Your task to perform on an android device: Open calendar and show me the fourth week of next month Image 0: 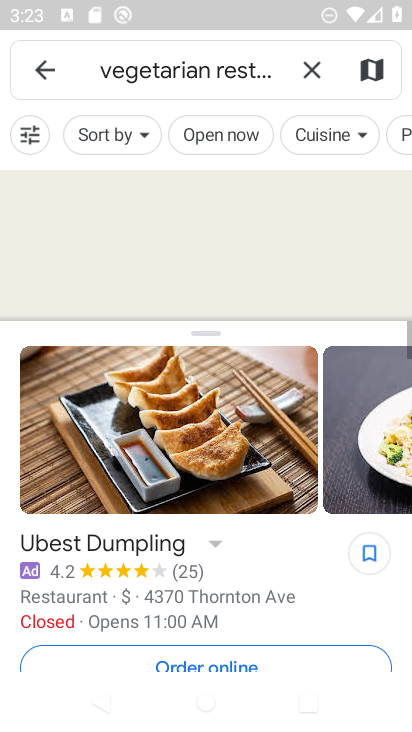
Step 0: click (325, 80)
Your task to perform on an android device: Open calendar and show me the fourth week of next month Image 1: 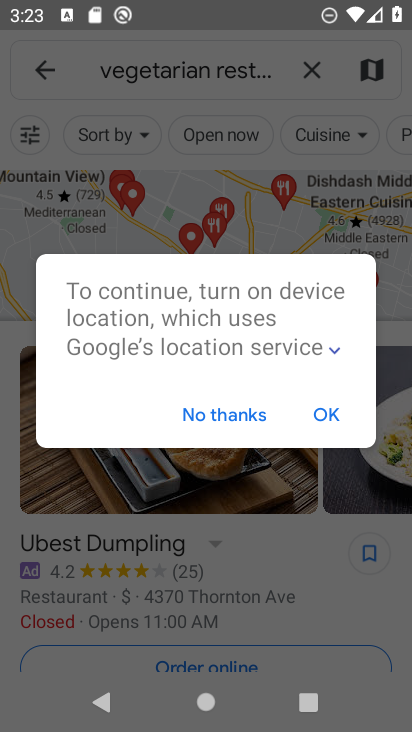
Step 1: press home button
Your task to perform on an android device: Open calendar and show me the fourth week of next month Image 2: 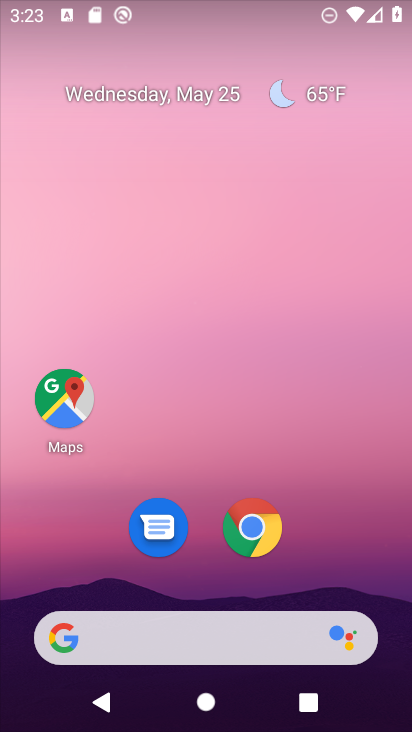
Step 2: drag from (223, 658) to (173, 103)
Your task to perform on an android device: Open calendar and show me the fourth week of next month Image 3: 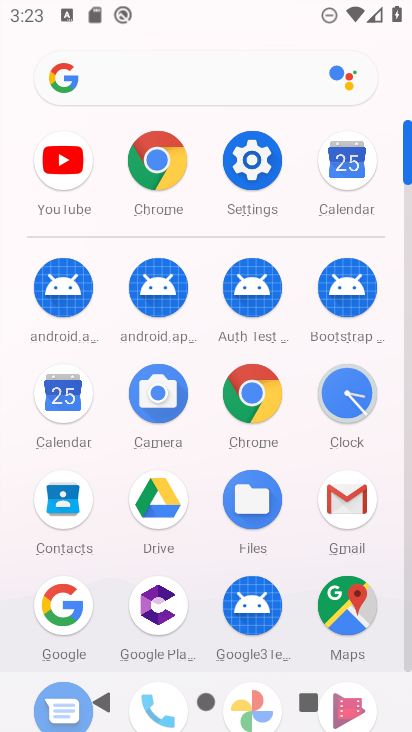
Step 3: drag from (70, 386) to (113, 386)
Your task to perform on an android device: Open calendar and show me the fourth week of next month Image 4: 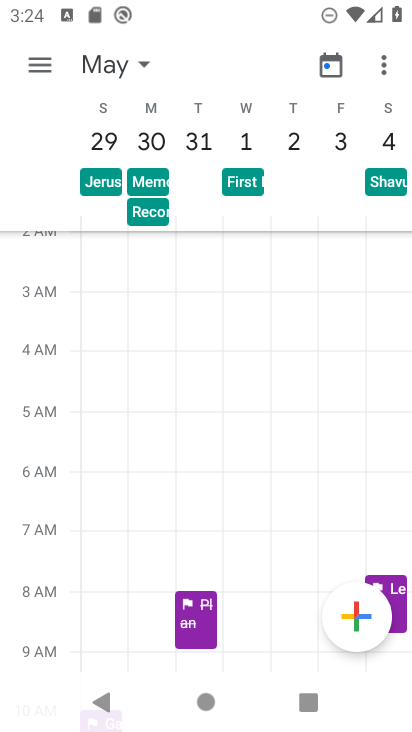
Step 4: click (137, 65)
Your task to perform on an android device: Open calendar and show me the fourth week of next month Image 5: 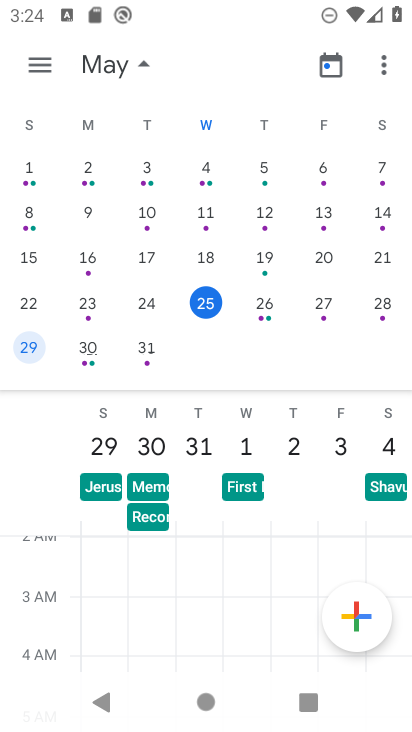
Step 5: drag from (288, 266) to (59, 306)
Your task to perform on an android device: Open calendar and show me the fourth week of next month Image 6: 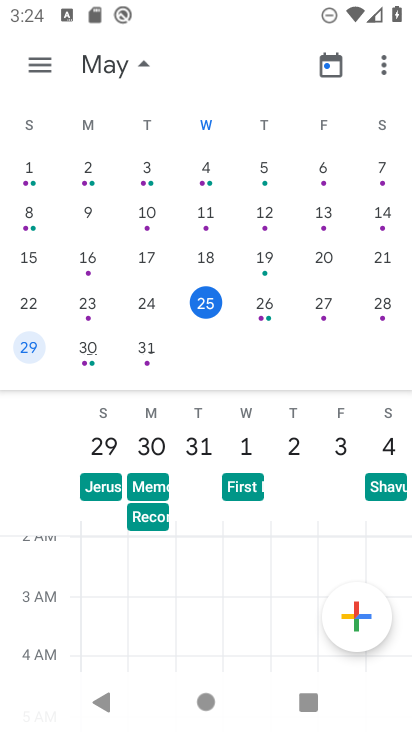
Step 6: drag from (384, 280) to (34, 256)
Your task to perform on an android device: Open calendar and show me the fourth week of next month Image 7: 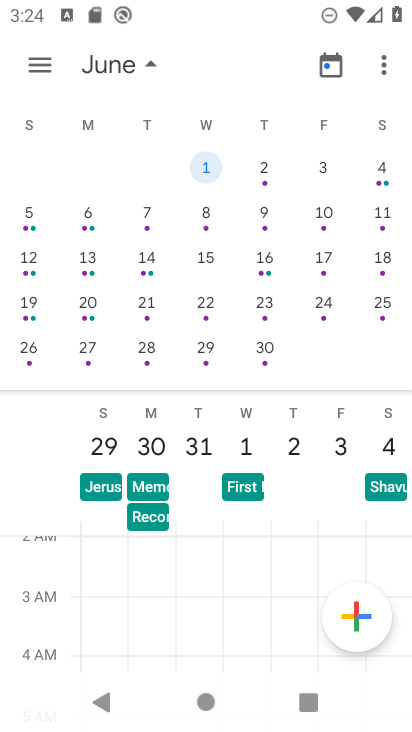
Step 7: click (260, 305)
Your task to perform on an android device: Open calendar and show me the fourth week of next month Image 8: 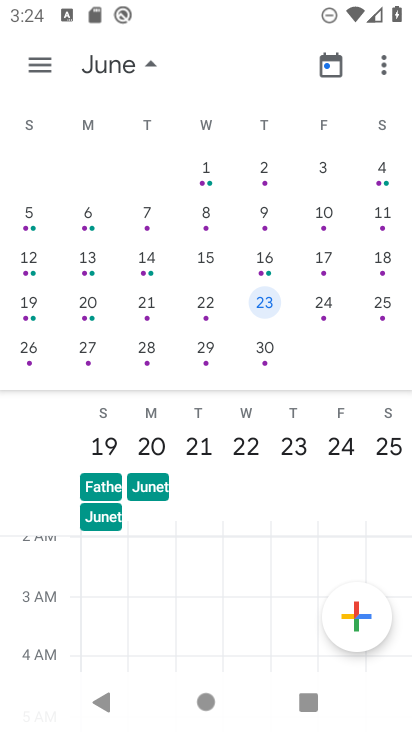
Step 8: task complete